Your task to perform on an android device: Show me popular videos on Youtube Image 0: 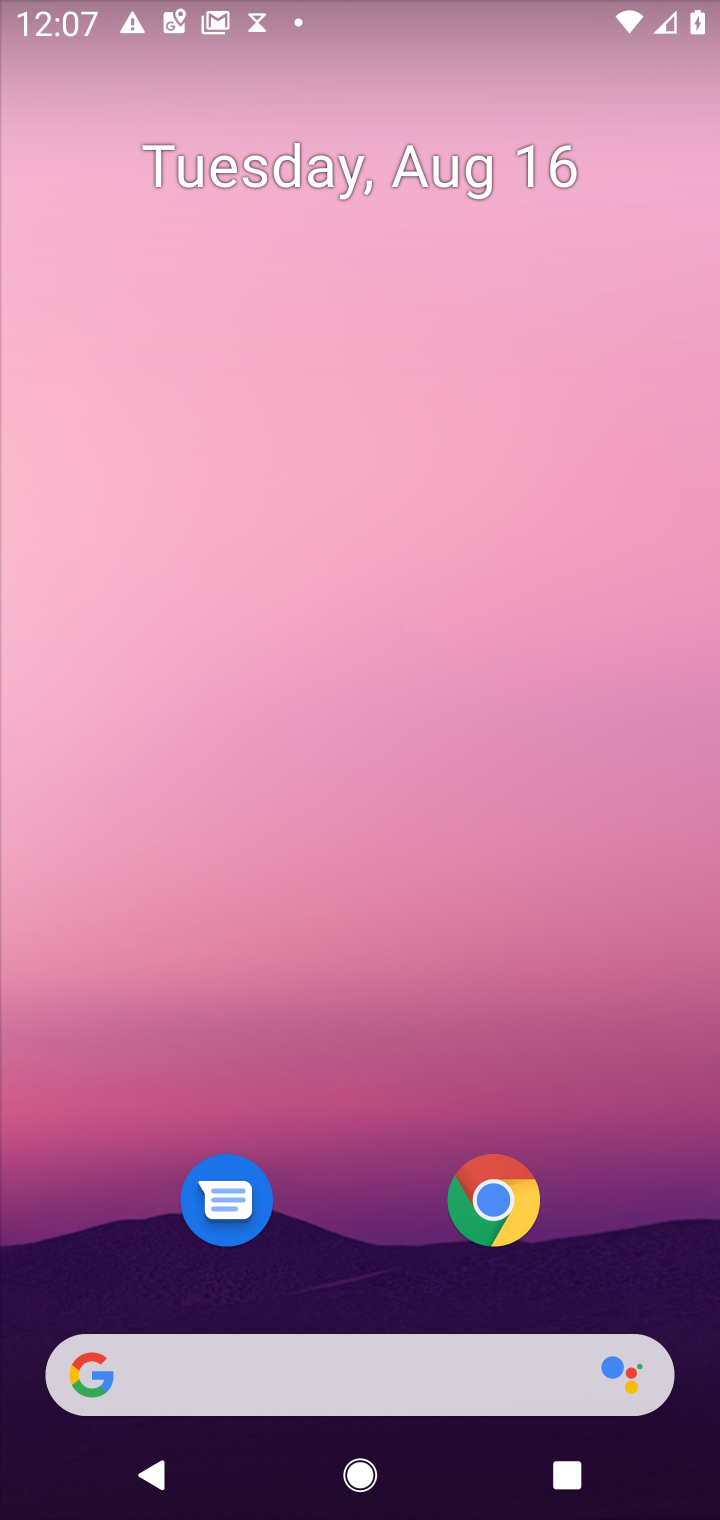
Step 0: drag from (381, 932) to (402, 513)
Your task to perform on an android device: Show me popular videos on Youtube Image 1: 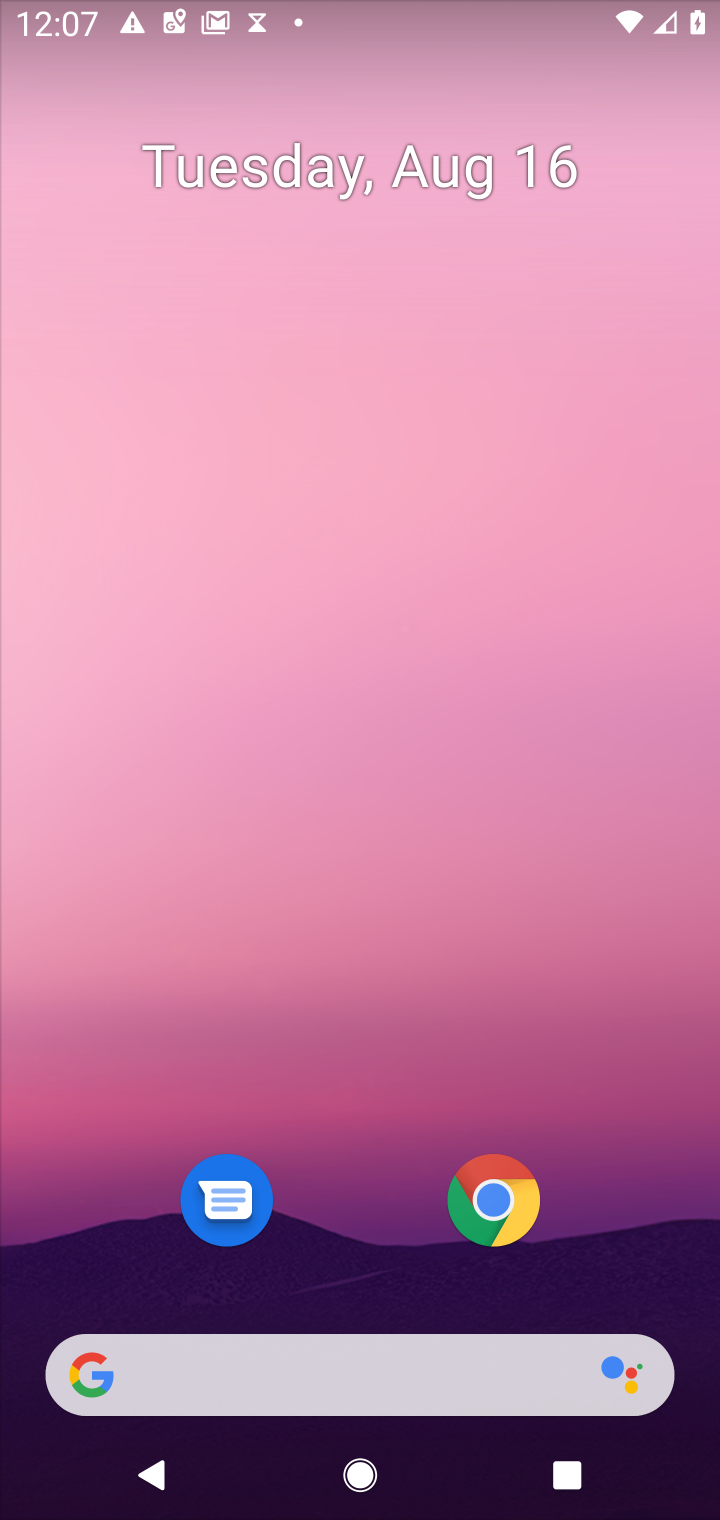
Step 1: drag from (333, 1212) to (351, 407)
Your task to perform on an android device: Show me popular videos on Youtube Image 2: 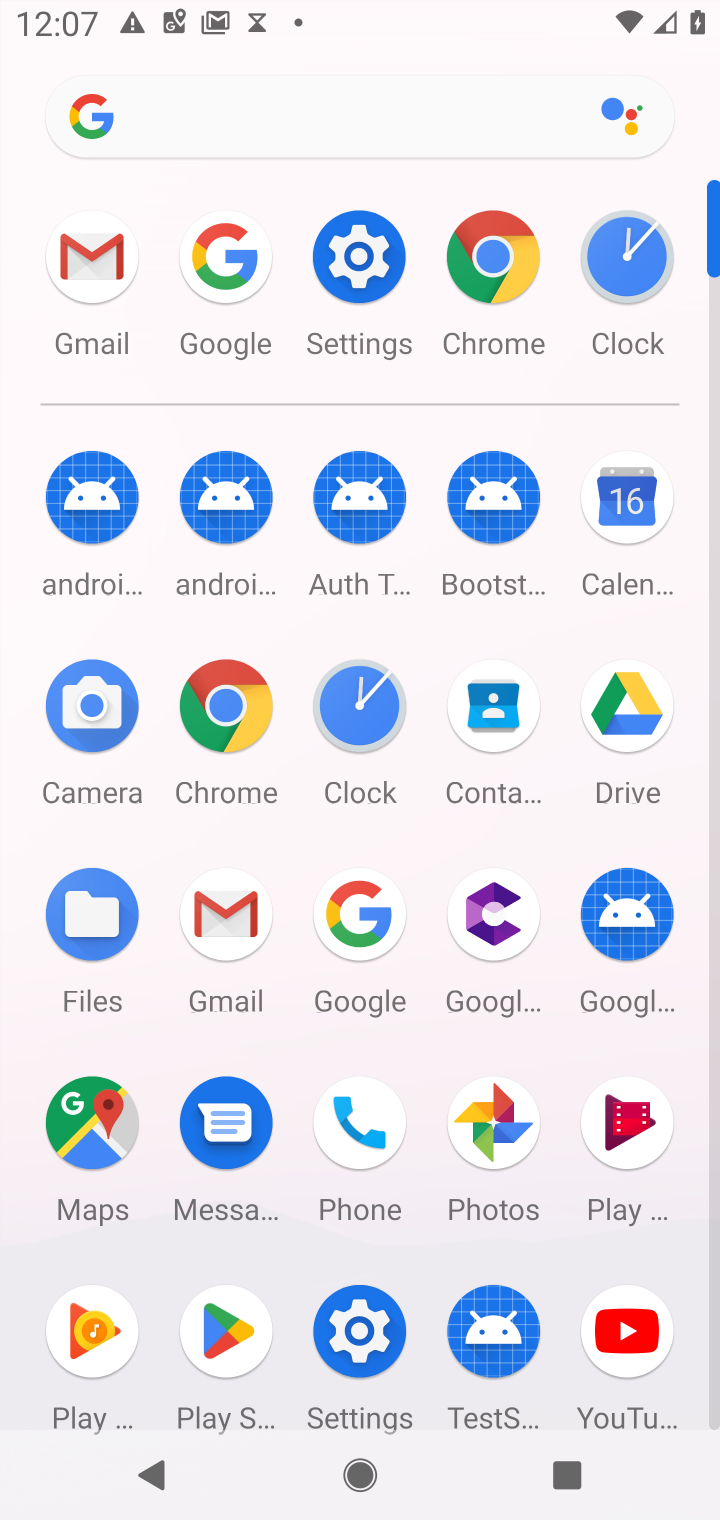
Step 2: click (611, 1338)
Your task to perform on an android device: Show me popular videos on Youtube Image 3: 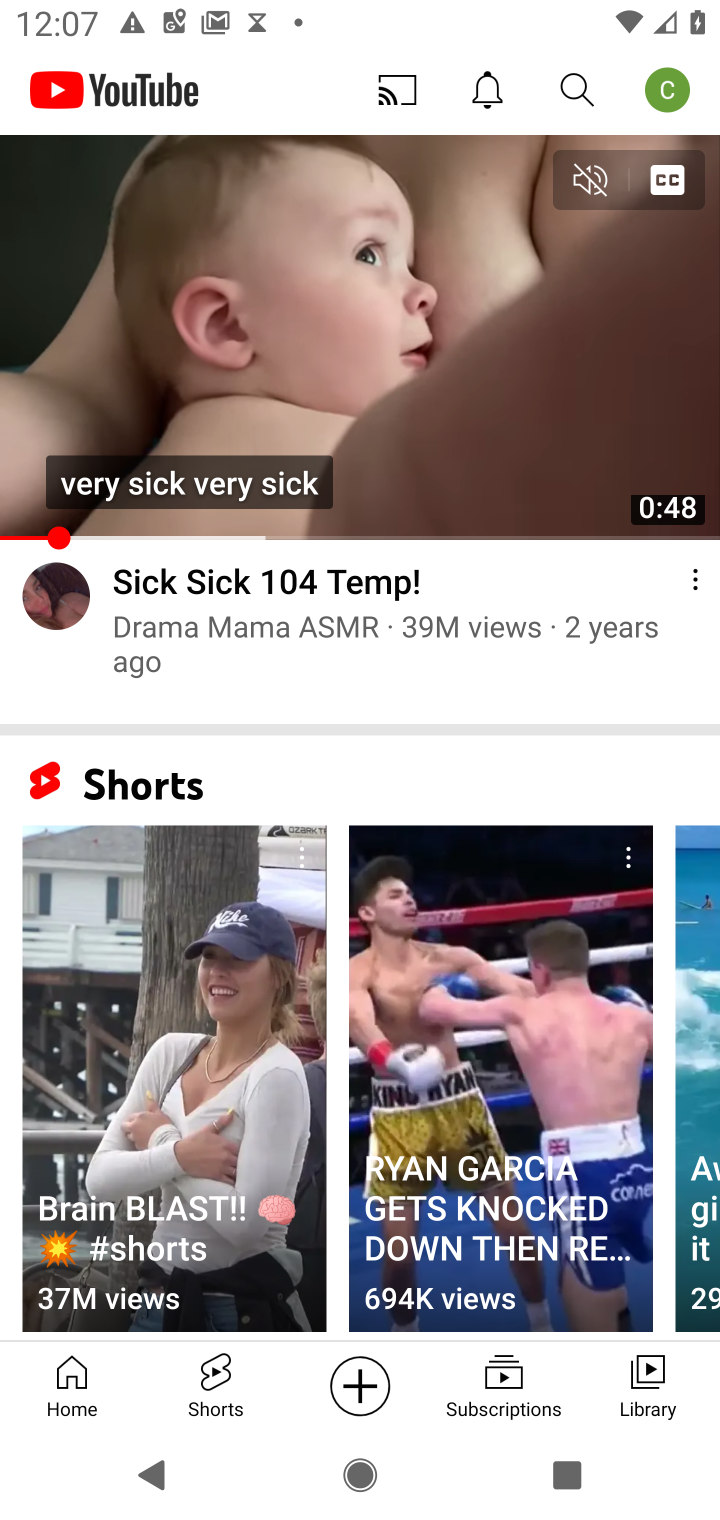
Step 3: click (571, 70)
Your task to perform on an android device: Show me popular videos on Youtube Image 4: 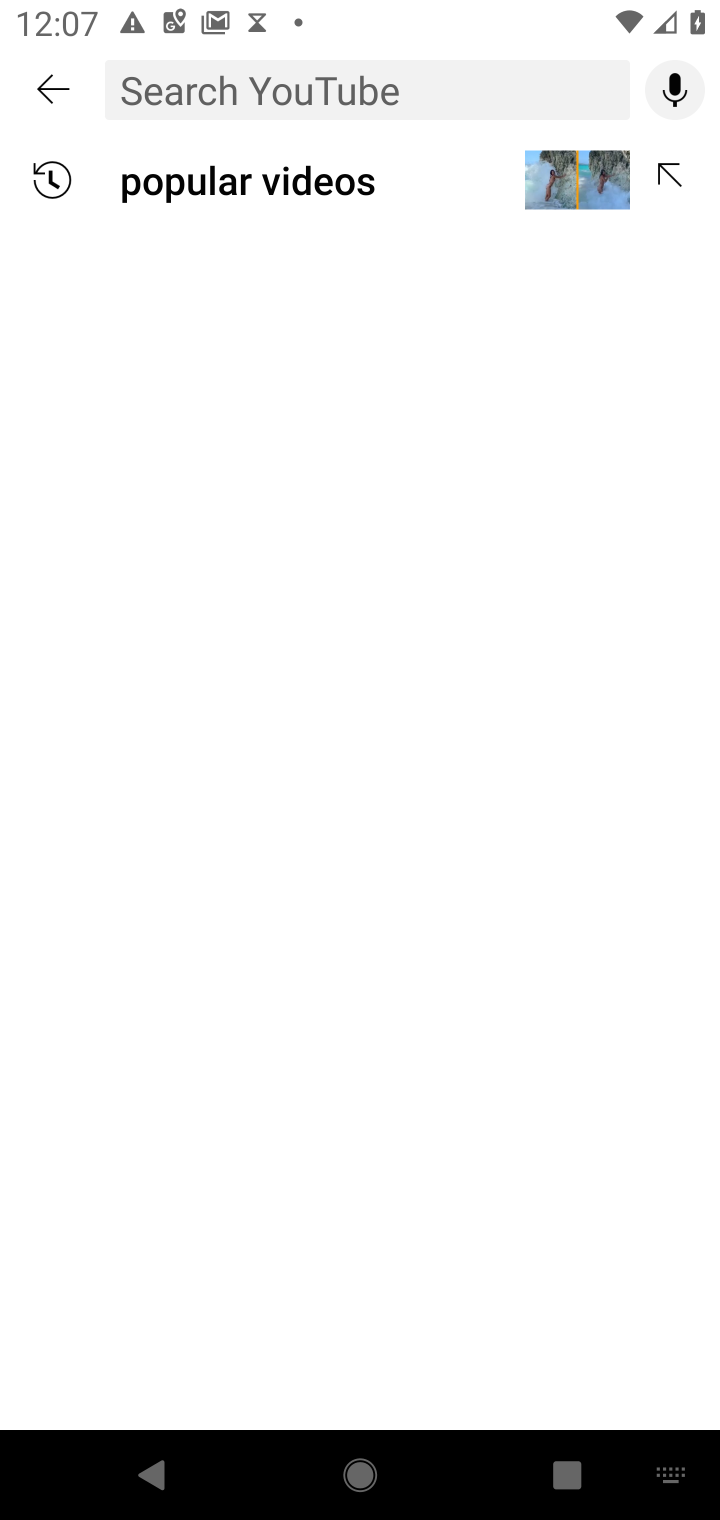
Step 4: click (377, 179)
Your task to perform on an android device: Show me popular videos on Youtube Image 5: 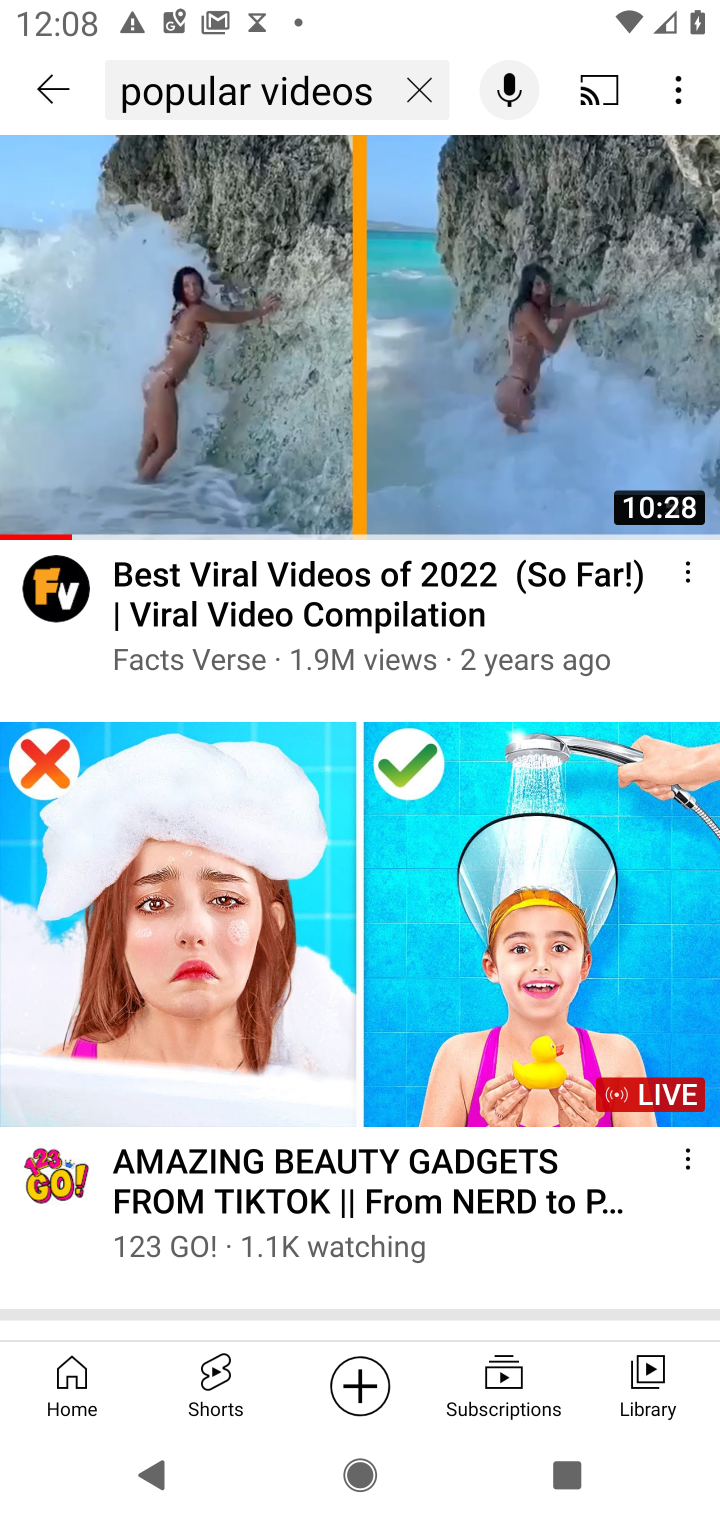
Step 5: task complete